Your task to perform on an android device: Go to battery settings Image 0: 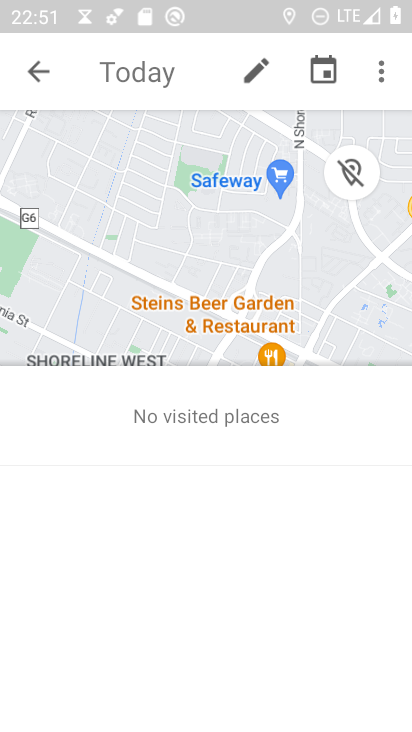
Step 0: press home button
Your task to perform on an android device: Go to battery settings Image 1: 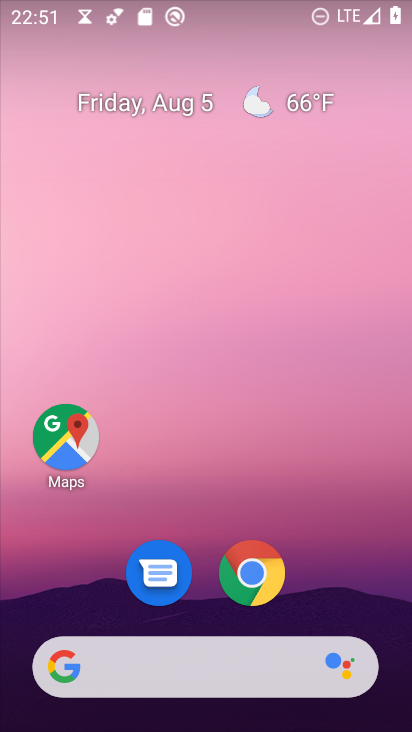
Step 1: drag from (168, 679) to (197, 137)
Your task to perform on an android device: Go to battery settings Image 2: 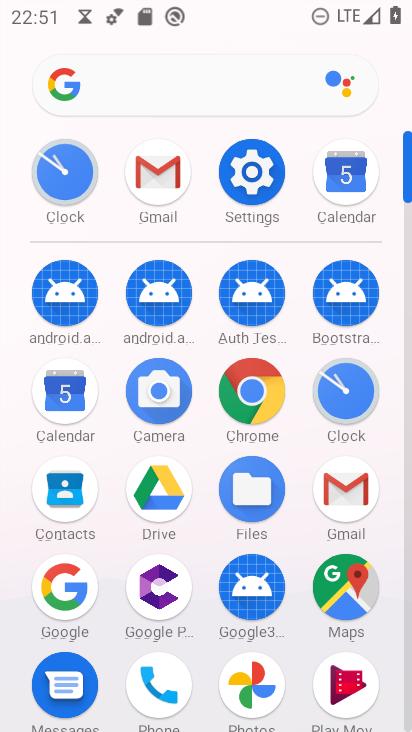
Step 2: click (251, 172)
Your task to perform on an android device: Go to battery settings Image 3: 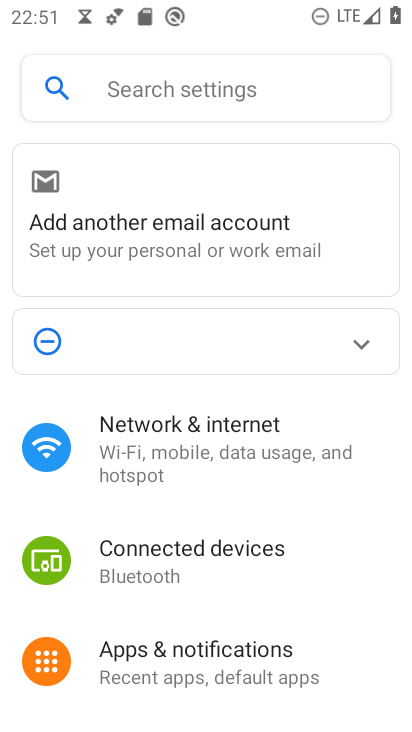
Step 3: drag from (232, 612) to (275, 350)
Your task to perform on an android device: Go to battery settings Image 4: 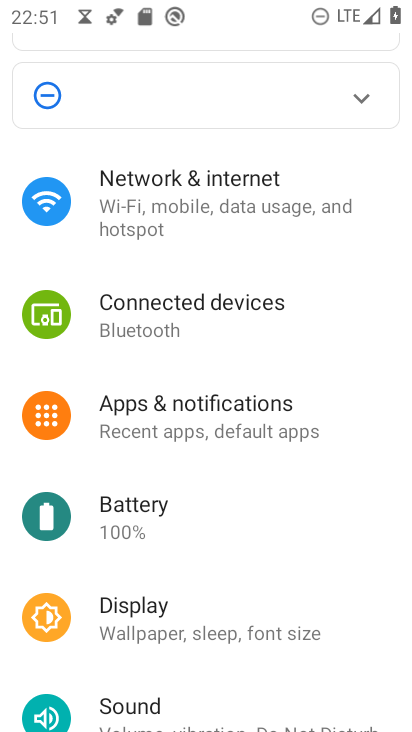
Step 4: click (144, 520)
Your task to perform on an android device: Go to battery settings Image 5: 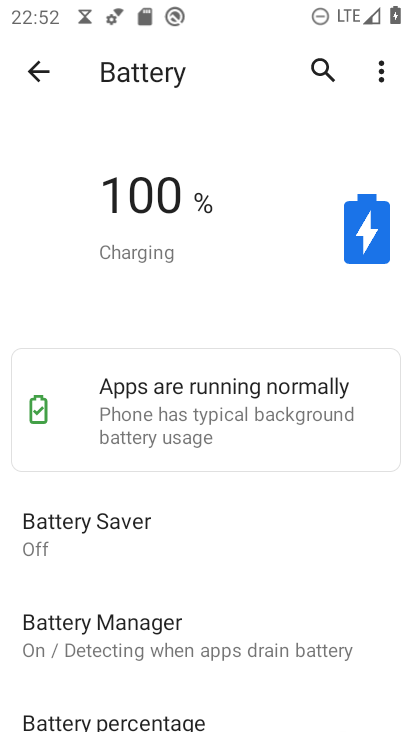
Step 5: task complete